Your task to perform on an android device: Play the last video I watched on Youtube Image 0: 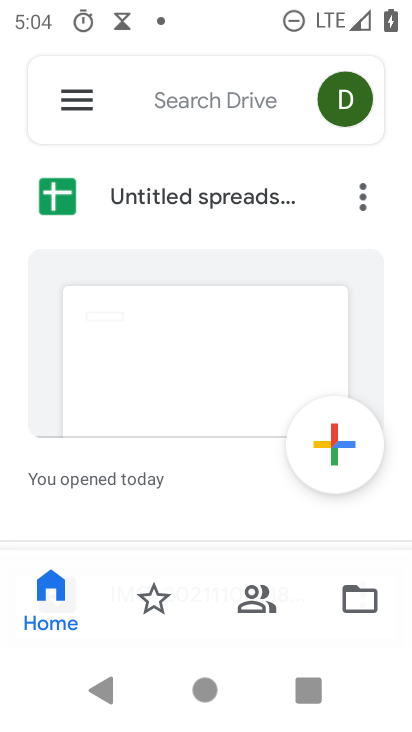
Step 0: press home button
Your task to perform on an android device: Play the last video I watched on Youtube Image 1: 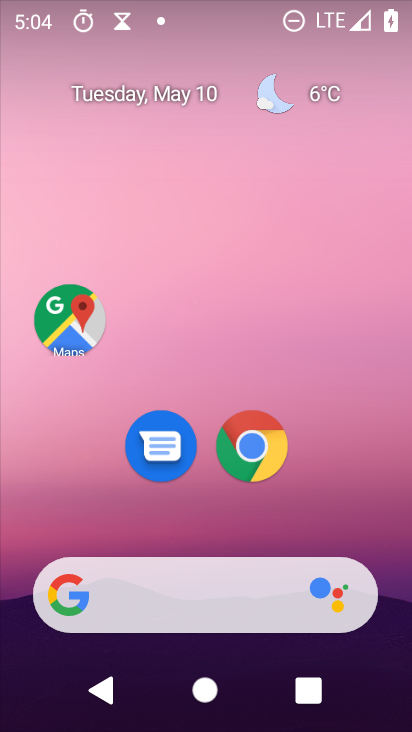
Step 1: drag from (224, 532) to (213, 81)
Your task to perform on an android device: Play the last video I watched on Youtube Image 2: 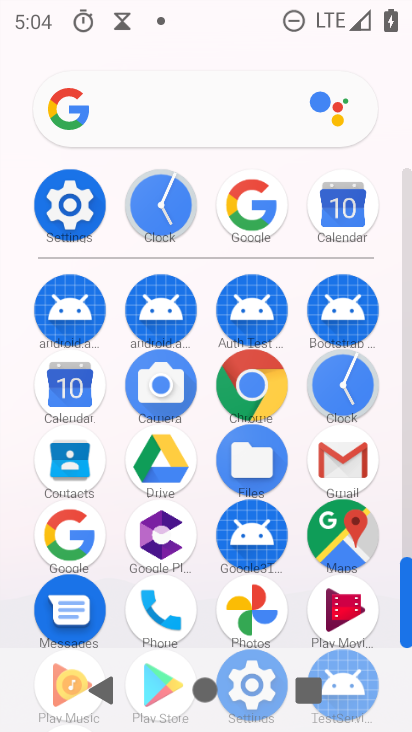
Step 2: drag from (212, 640) to (208, 242)
Your task to perform on an android device: Play the last video I watched on Youtube Image 3: 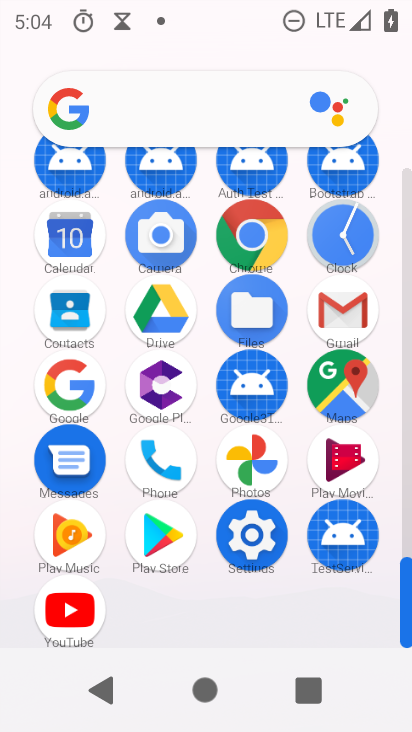
Step 3: click (75, 605)
Your task to perform on an android device: Play the last video I watched on Youtube Image 4: 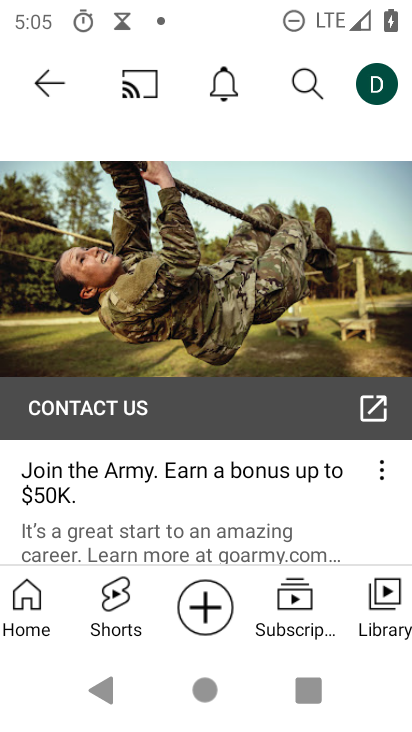
Step 4: click (382, 595)
Your task to perform on an android device: Play the last video I watched on Youtube Image 5: 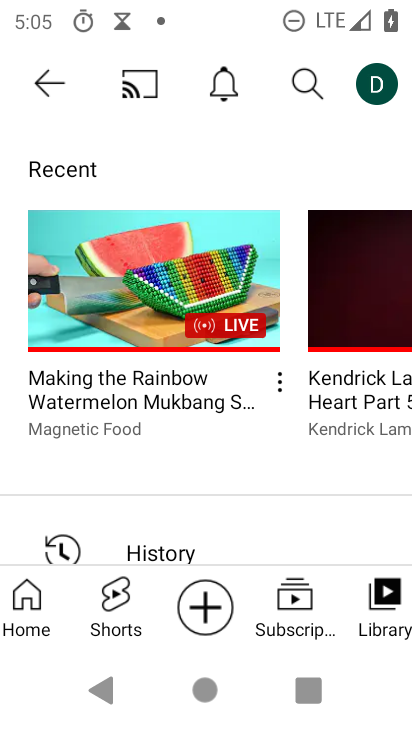
Step 5: click (157, 281)
Your task to perform on an android device: Play the last video I watched on Youtube Image 6: 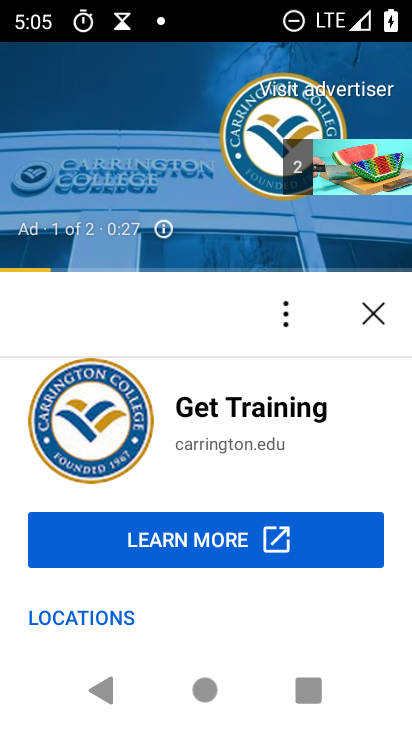
Step 6: task complete